Your task to perform on an android device: see tabs open on other devices in the chrome app Image 0: 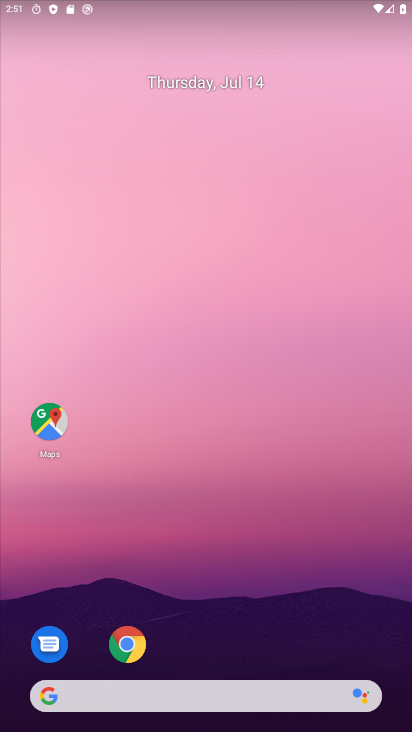
Step 0: click (143, 655)
Your task to perform on an android device: see tabs open on other devices in the chrome app Image 1: 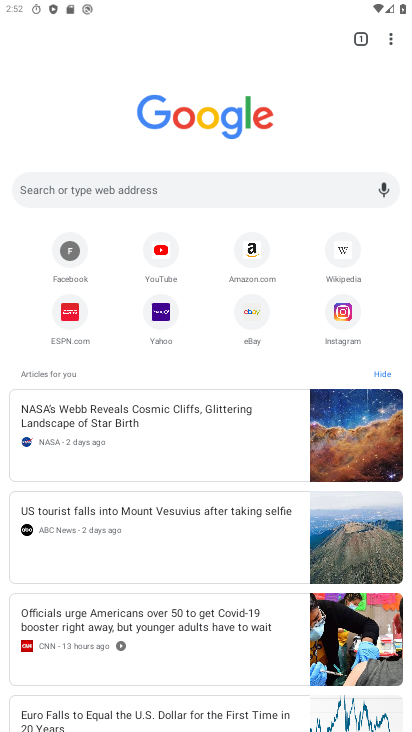
Step 1: task complete